Your task to perform on an android device: allow notifications from all sites in the chrome app Image 0: 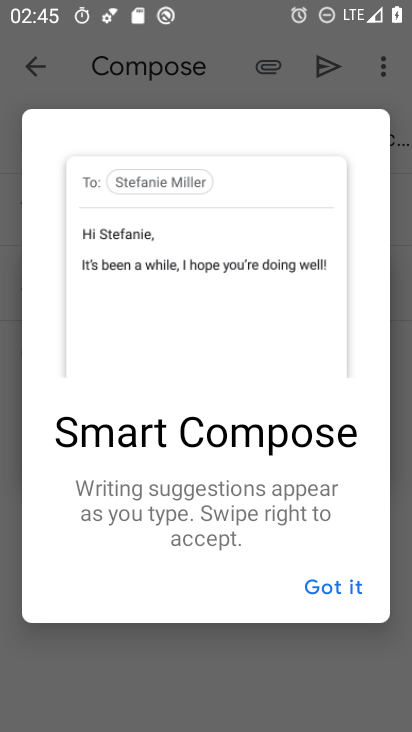
Step 0: press home button
Your task to perform on an android device: allow notifications from all sites in the chrome app Image 1: 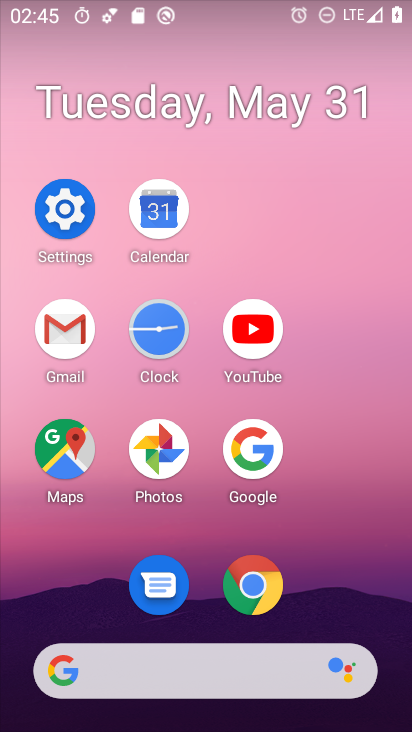
Step 1: click (246, 590)
Your task to perform on an android device: allow notifications from all sites in the chrome app Image 2: 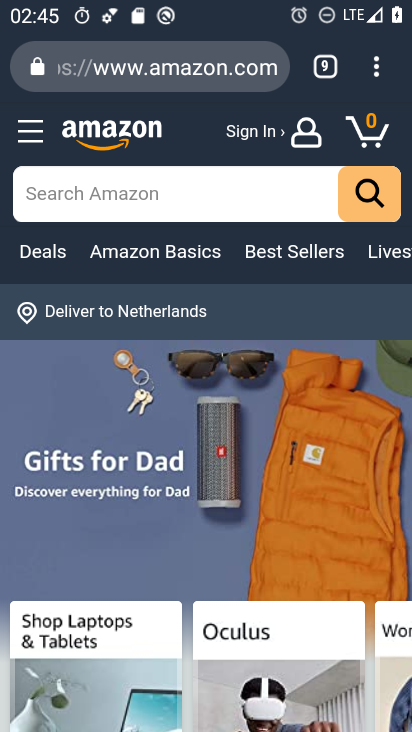
Step 2: click (376, 56)
Your task to perform on an android device: allow notifications from all sites in the chrome app Image 3: 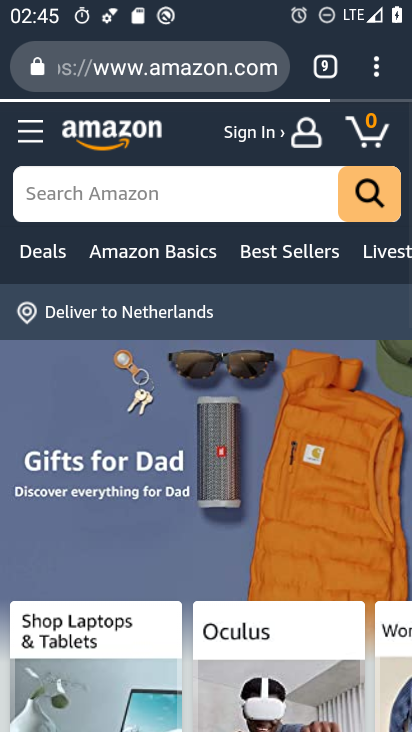
Step 3: click (385, 71)
Your task to perform on an android device: allow notifications from all sites in the chrome app Image 4: 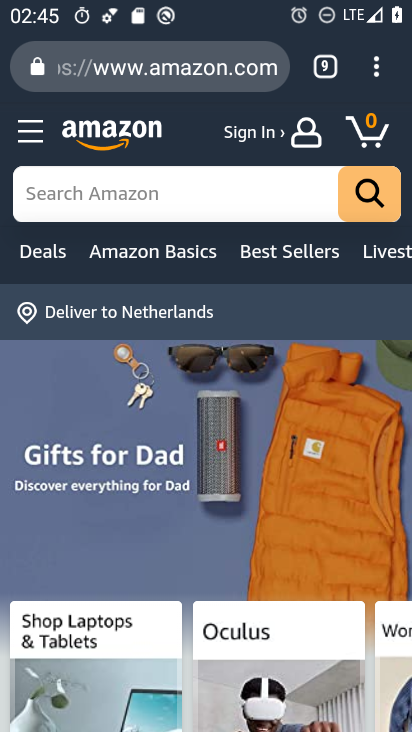
Step 4: click (379, 58)
Your task to perform on an android device: allow notifications from all sites in the chrome app Image 5: 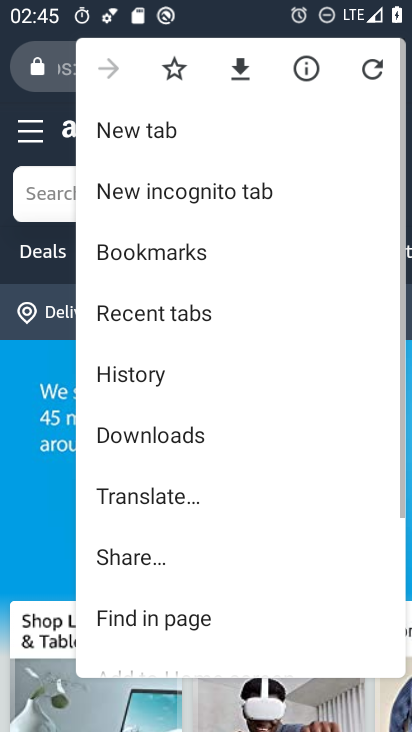
Step 5: drag from (212, 423) to (237, 161)
Your task to perform on an android device: allow notifications from all sites in the chrome app Image 6: 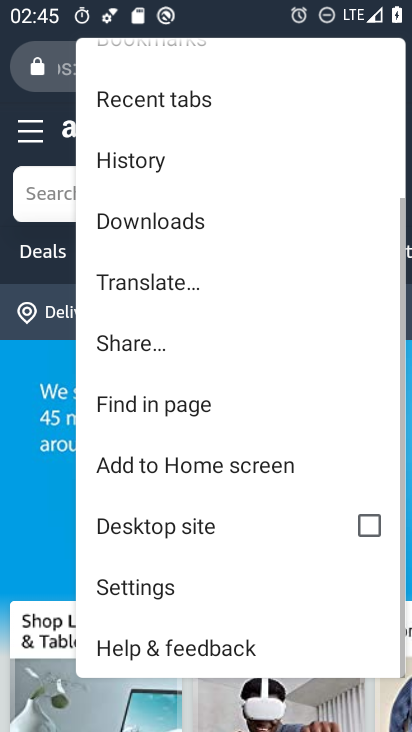
Step 6: click (201, 584)
Your task to perform on an android device: allow notifications from all sites in the chrome app Image 7: 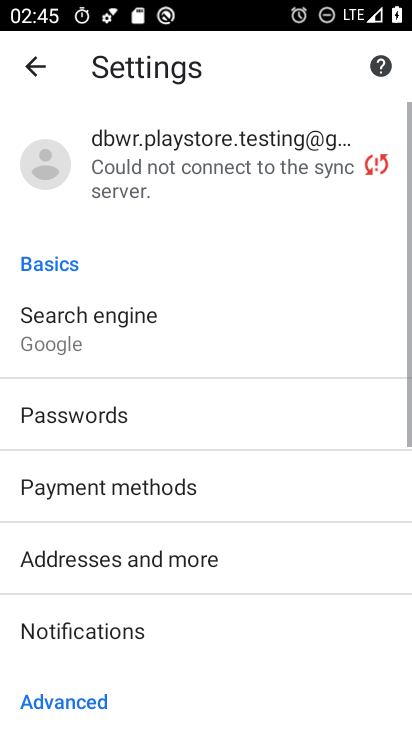
Step 7: drag from (204, 333) to (211, 182)
Your task to perform on an android device: allow notifications from all sites in the chrome app Image 8: 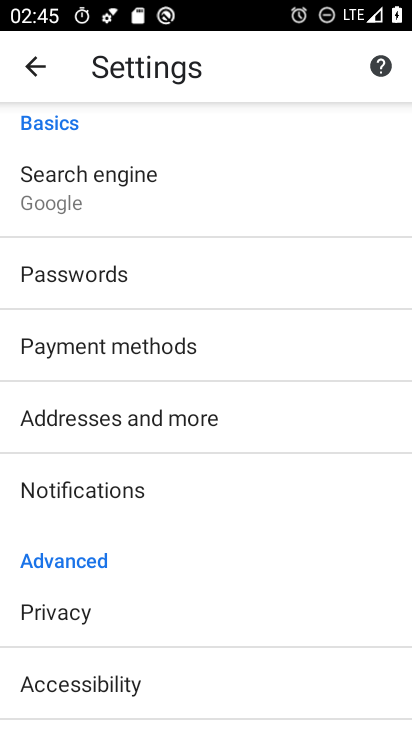
Step 8: click (160, 483)
Your task to perform on an android device: allow notifications from all sites in the chrome app Image 9: 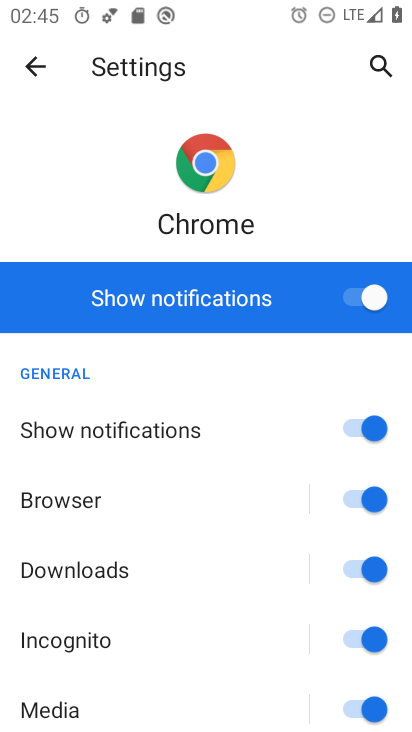
Step 9: task complete